Your task to perform on an android device: Open the web browser Image 0: 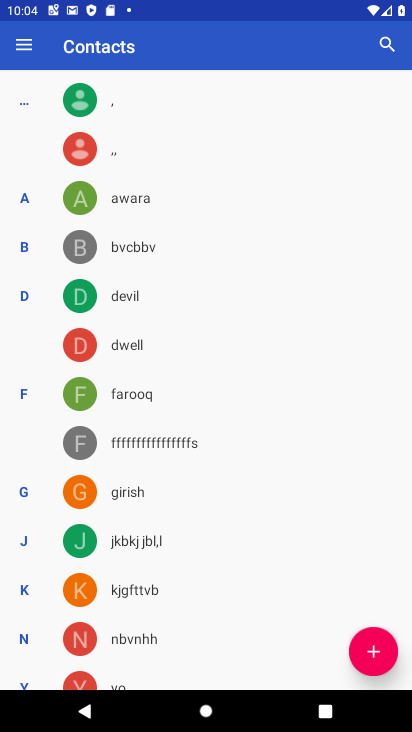
Step 0: press home button
Your task to perform on an android device: Open the web browser Image 1: 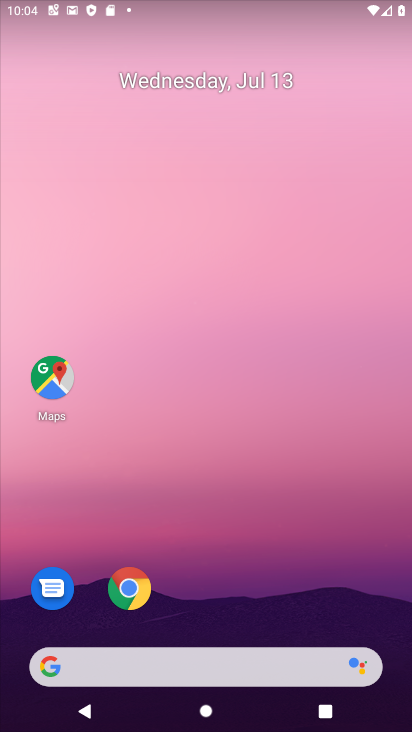
Step 1: click (92, 667)
Your task to perform on an android device: Open the web browser Image 2: 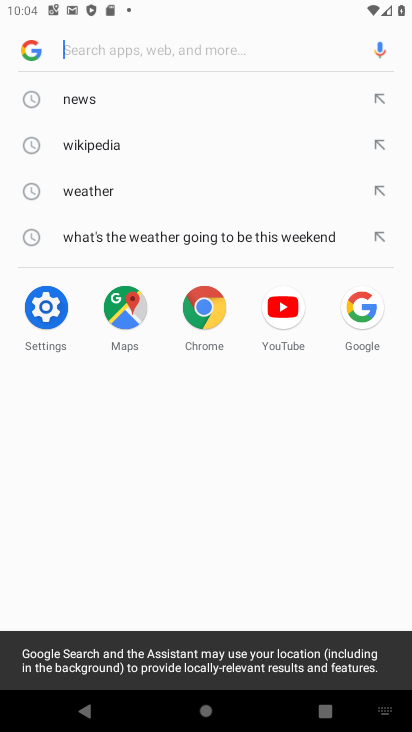
Step 2: task complete